Your task to perform on an android device: allow notifications from all sites in the chrome app Image 0: 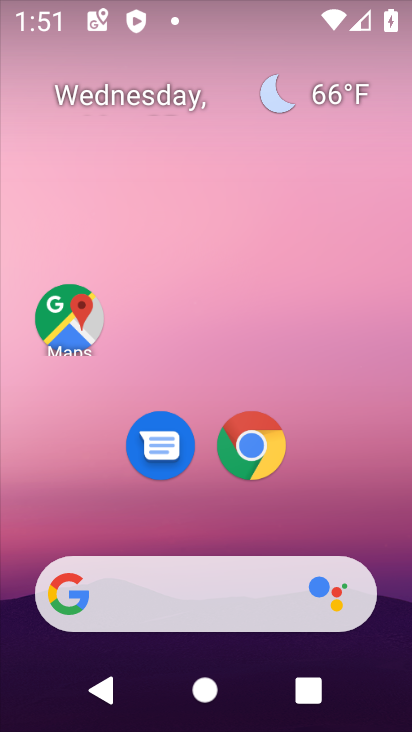
Step 0: click (245, 447)
Your task to perform on an android device: allow notifications from all sites in the chrome app Image 1: 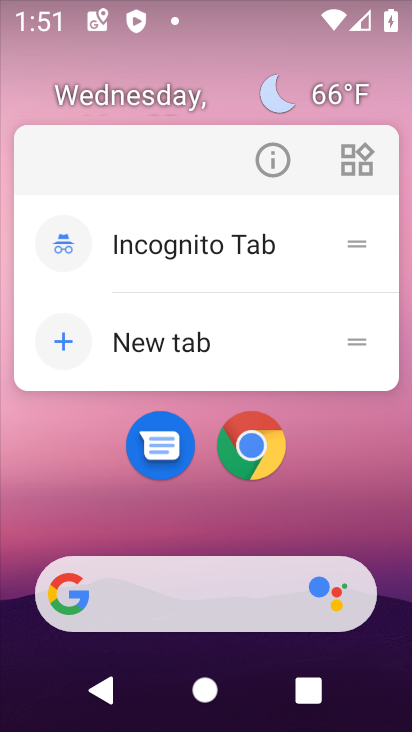
Step 1: click (244, 453)
Your task to perform on an android device: allow notifications from all sites in the chrome app Image 2: 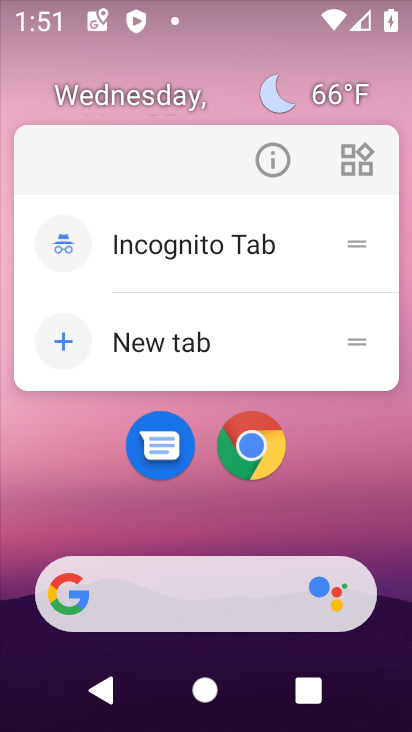
Step 2: click (248, 443)
Your task to perform on an android device: allow notifications from all sites in the chrome app Image 3: 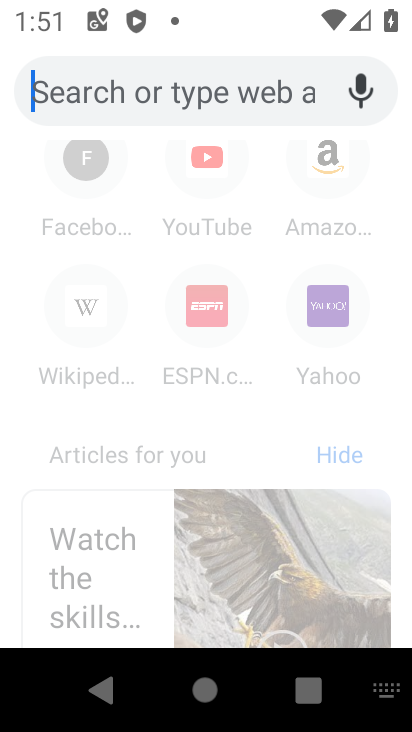
Step 3: press back button
Your task to perform on an android device: allow notifications from all sites in the chrome app Image 4: 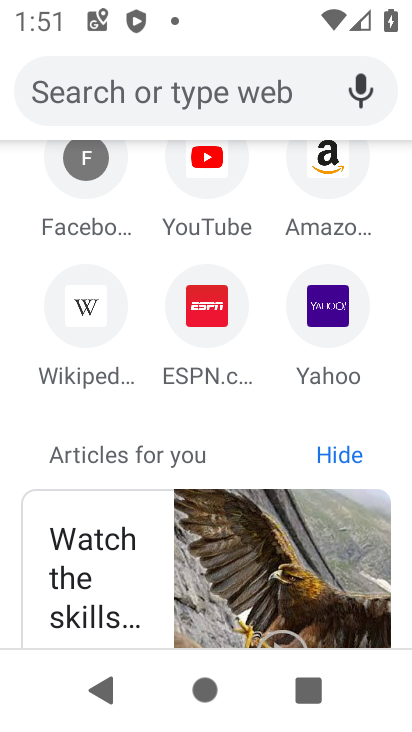
Step 4: drag from (194, 224) to (117, 614)
Your task to perform on an android device: allow notifications from all sites in the chrome app Image 5: 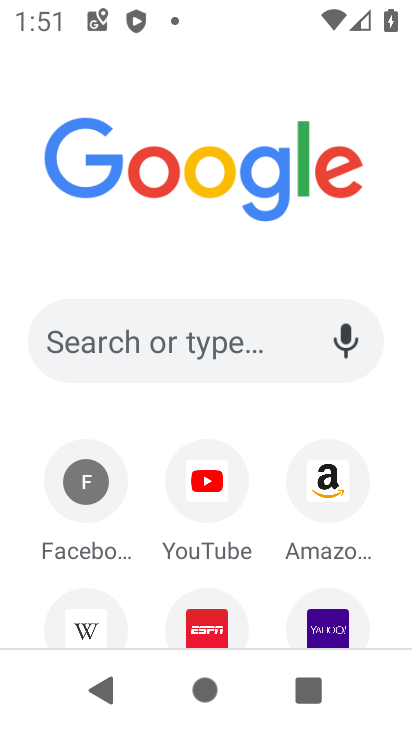
Step 5: drag from (357, 137) to (298, 524)
Your task to perform on an android device: allow notifications from all sites in the chrome app Image 6: 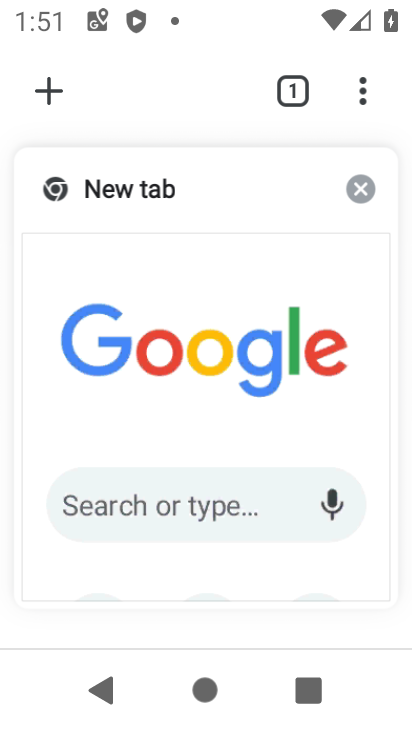
Step 6: click (208, 301)
Your task to perform on an android device: allow notifications from all sites in the chrome app Image 7: 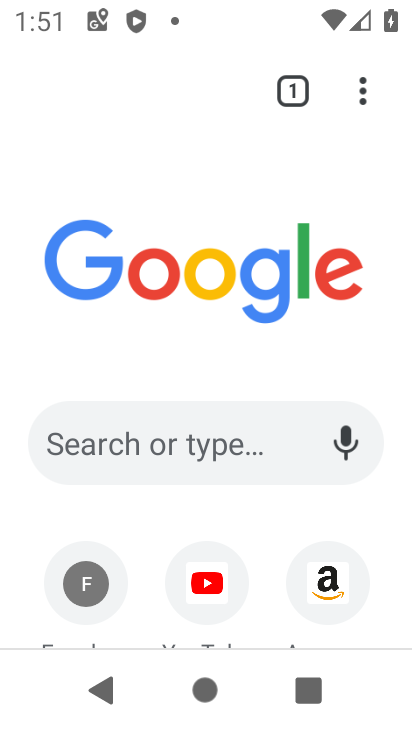
Step 7: click (365, 93)
Your task to perform on an android device: allow notifications from all sites in the chrome app Image 8: 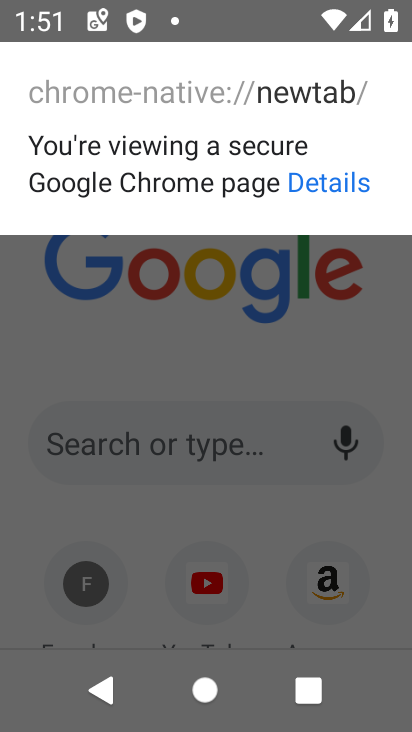
Step 8: press back button
Your task to perform on an android device: allow notifications from all sites in the chrome app Image 9: 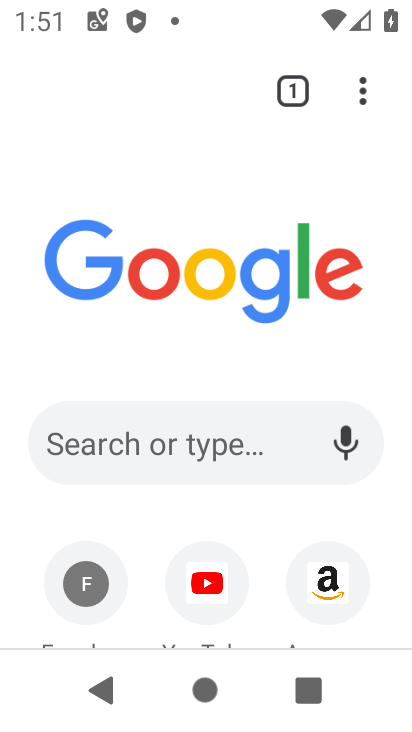
Step 9: click (361, 96)
Your task to perform on an android device: allow notifications from all sites in the chrome app Image 10: 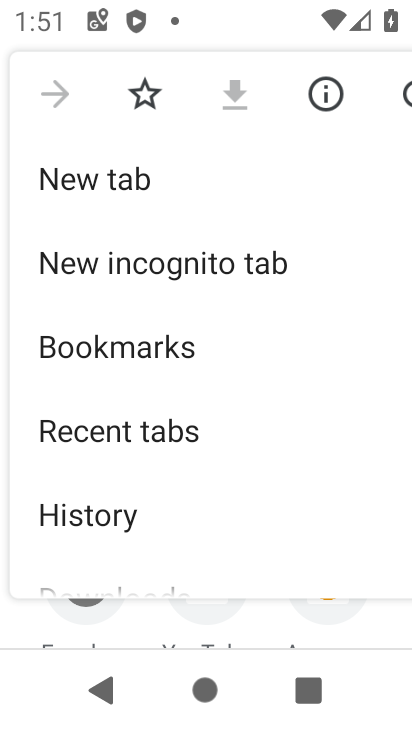
Step 10: drag from (34, 588) to (182, 108)
Your task to perform on an android device: allow notifications from all sites in the chrome app Image 11: 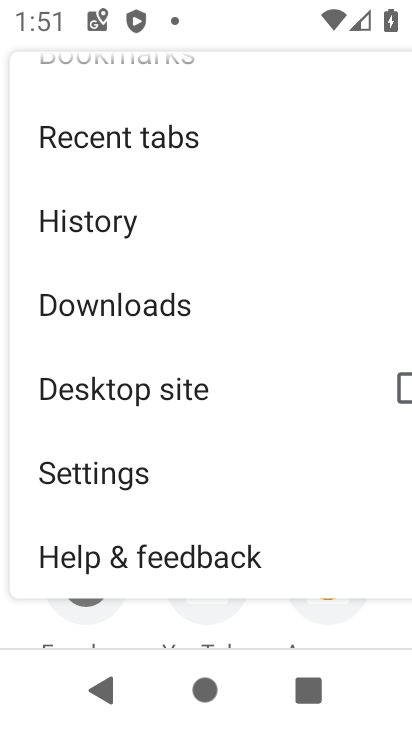
Step 11: click (131, 469)
Your task to perform on an android device: allow notifications from all sites in the chrome app Image 12: 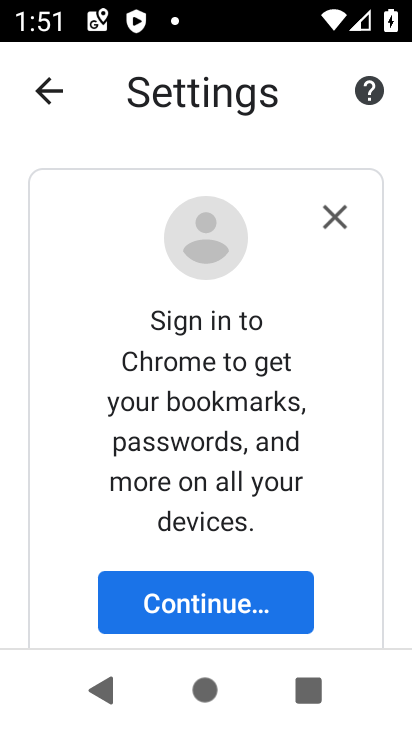
Step 12: click (331, 217)
Your task to perform on an android device: allow notifications from all sites in the chrome app Image 13: 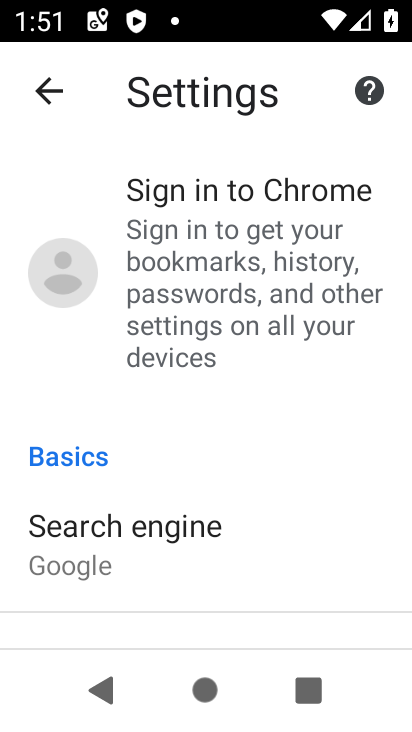
Step 13: drag from (139, 210) to (191, 90)
Your task to perform on an android device: allow notifications from all sites in the chrome app Image 14: 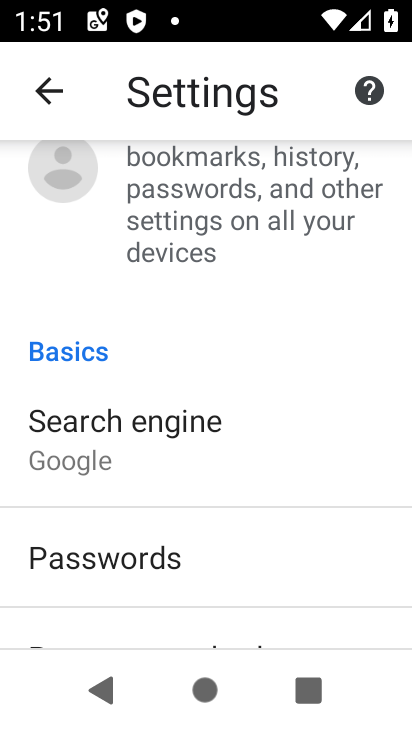
Step 14: drag from (22, 558) to (224, 124)
Your task to perform on an android device: allow notifications from all sites in the chrome app Image 15: 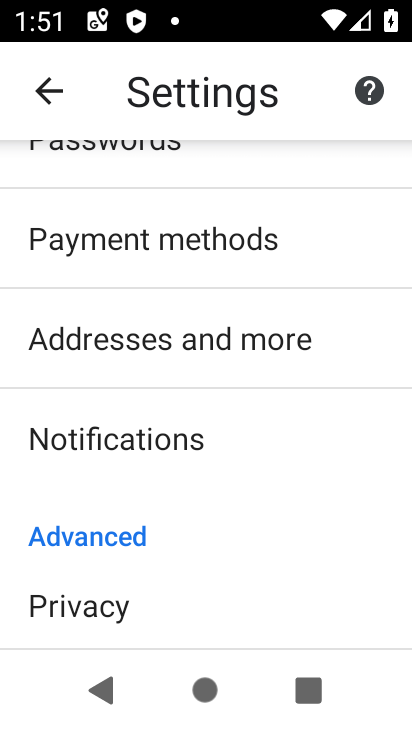
Step 15: drag from (13, 561) to (210, 166)
Your task to perform on an android device: allow notifications from all sites in the chrome app Image 16: 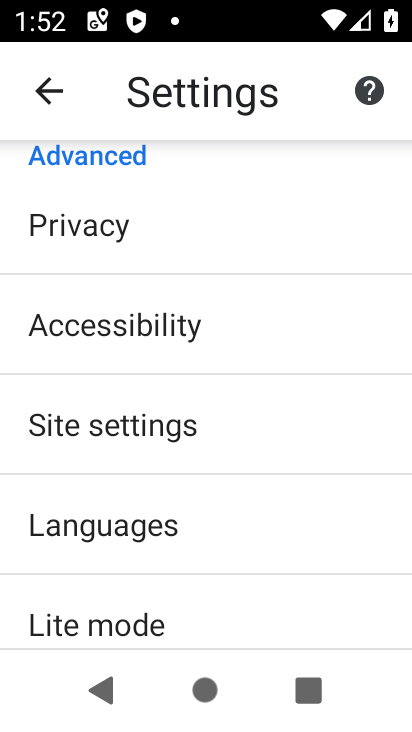
Step 16: click (154, 434)
Your task to perform on an android device: allow notifications from all sites in the chrome app Image 17: 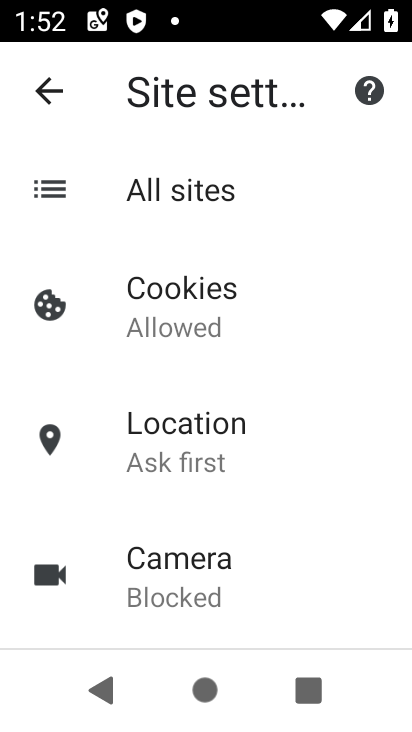
Step 17: drag from (0, 606) to (289, 169)
Your task to perform on an android device: allow notifications from all sites in the chrome app Image 18: 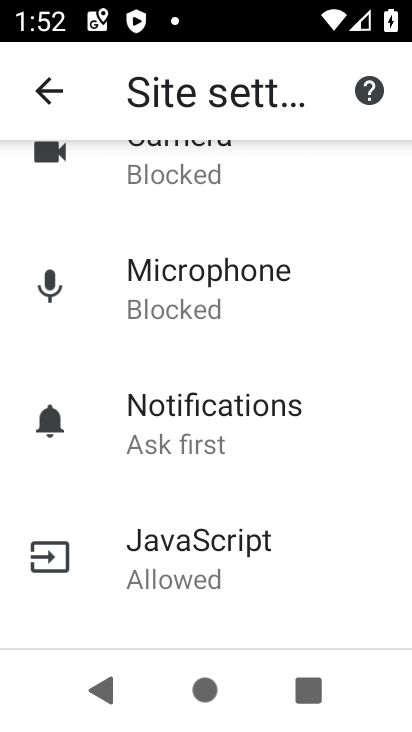
Step 18: click (181, 411)
Your task to perform on an android device: allow notifications from all sites in the chrome app Image 19: 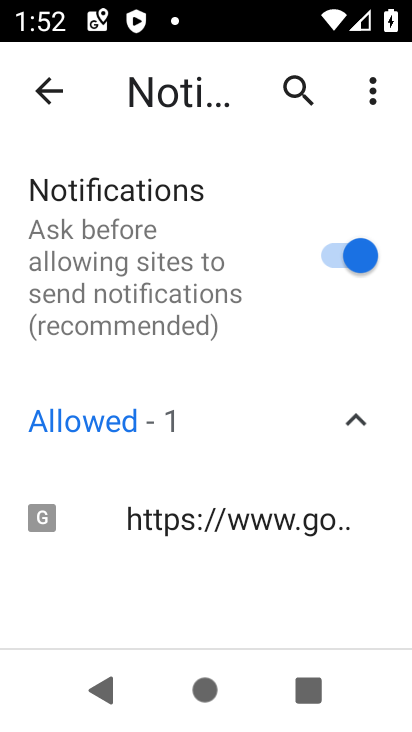
Step 19: drag from (30, 210) to (72, 106)
Your task to perform on an android device: allow notifications from all sites in the chrome app Image 20: 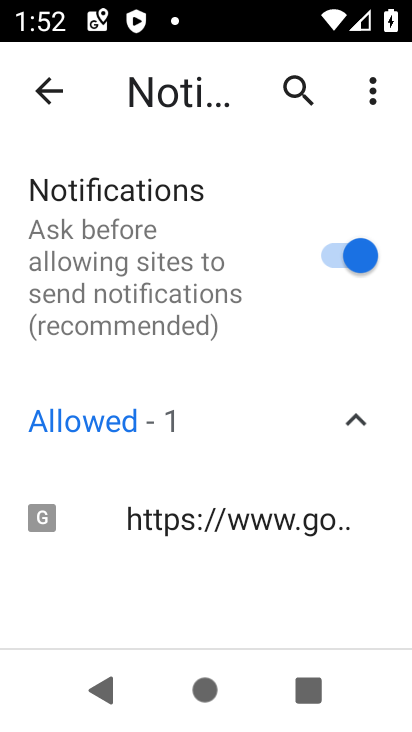
Step 20: click (226, 513)
Your task to perform on an android device: allow notifications from all sites in the chrome app Image 21: 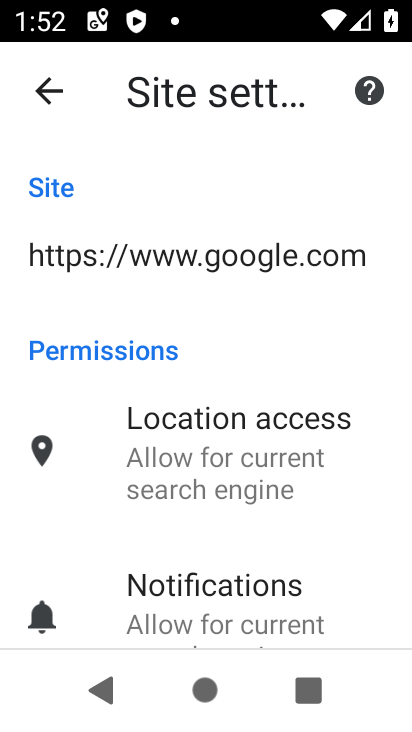
Step 21: drag from (127, 604) to (286, 229)
Your task to perform on an android device: allow notifications from all sites in the chrome app Image 22: 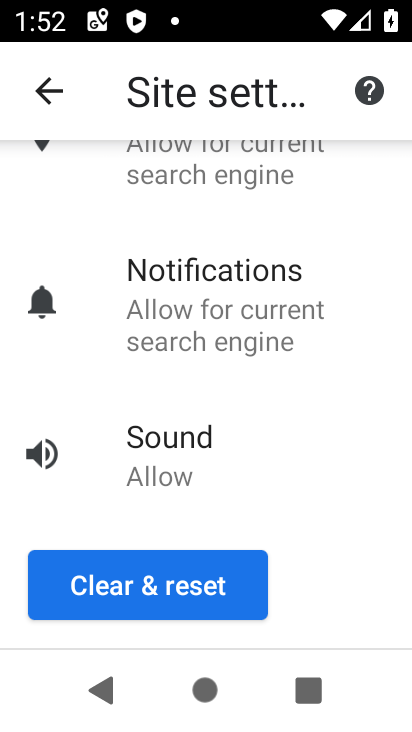
Step 22: click (191, 296)
Your task to perform on an android device: allow notifications from all sites in the chrome app Image 23: 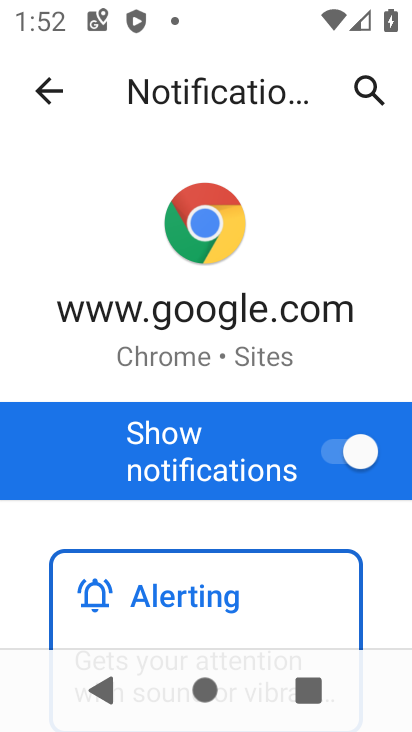
Step 23: click (355, 453)
Your task to perform on an android device: allow notifications from all sites in the chrome app Image 24: 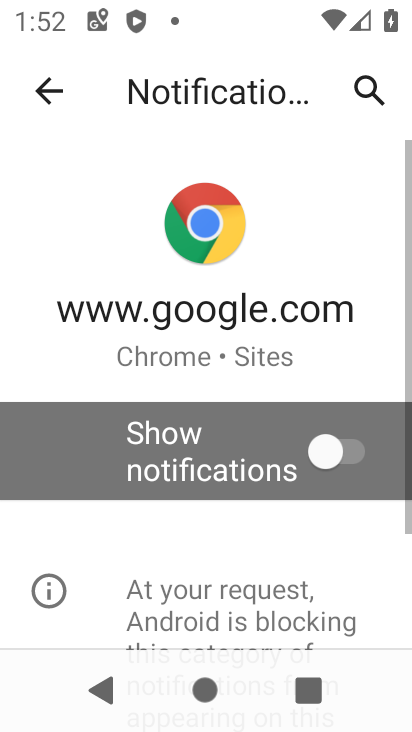
Step 24: task complete